Your task to perform on an android device: Open network settings Image 0: 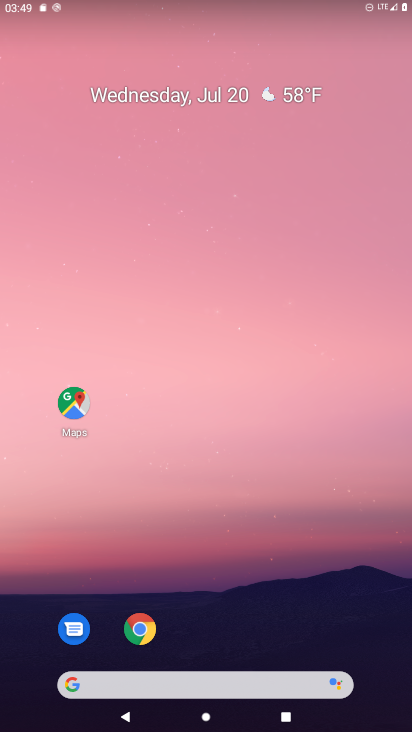
Step 0: drag from (293, 614) to (324, 178)
Your task to perform on an android device: Open network settings Image 1: 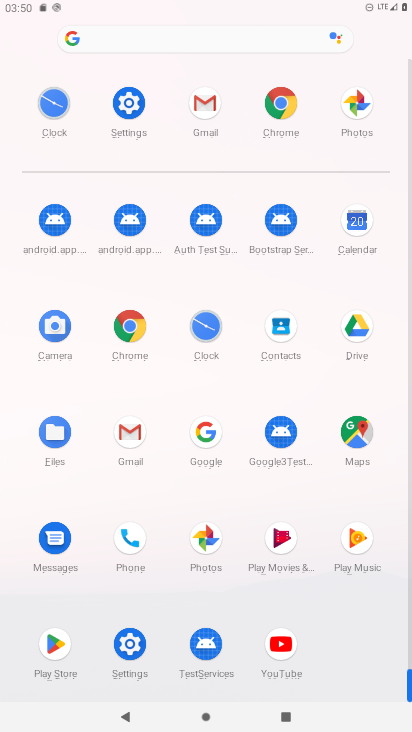
Step 1: click (127, 635)
Your task to perform on an android device: Open network settings Image 2: 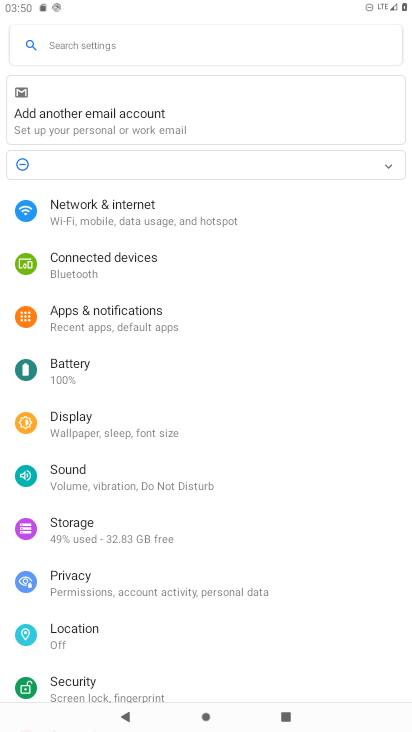
Step 2: click (126, 205)
Your task to perform on an android device: Open network settings Image 3: 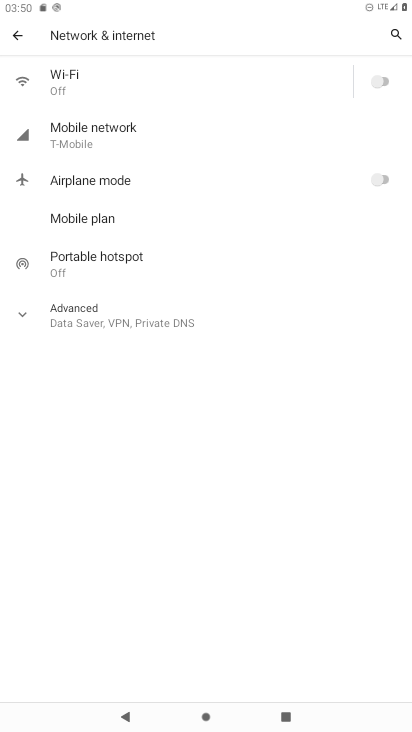
Step 3: task complete